Your task to perform on an android device: Search for bose soundlink on target, select the first entry, add it to the cart, then select checkout. Image 0: 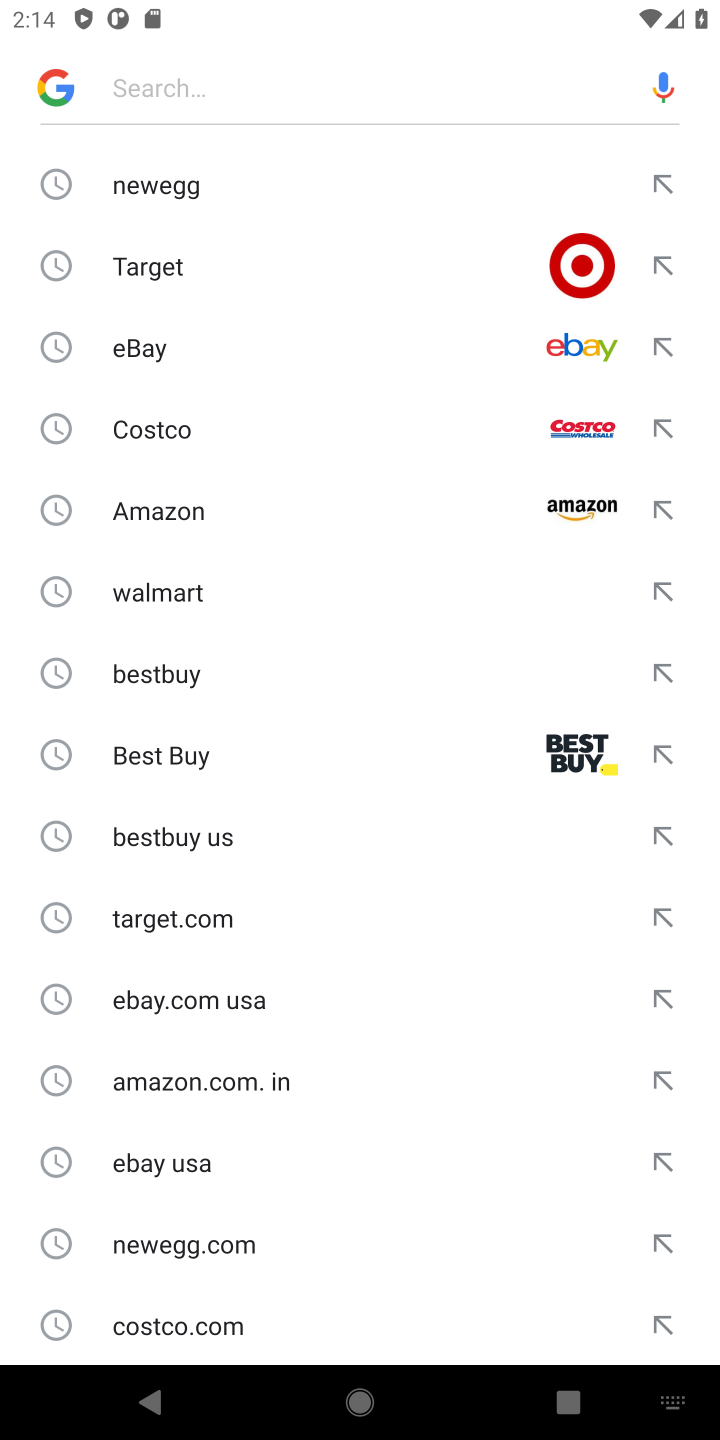
Step 0: click (218, 260)
Your task to perform on an android device: Search for bose soundlink on target, select the first entry, add it to the cart, then select checkout. Image 1: 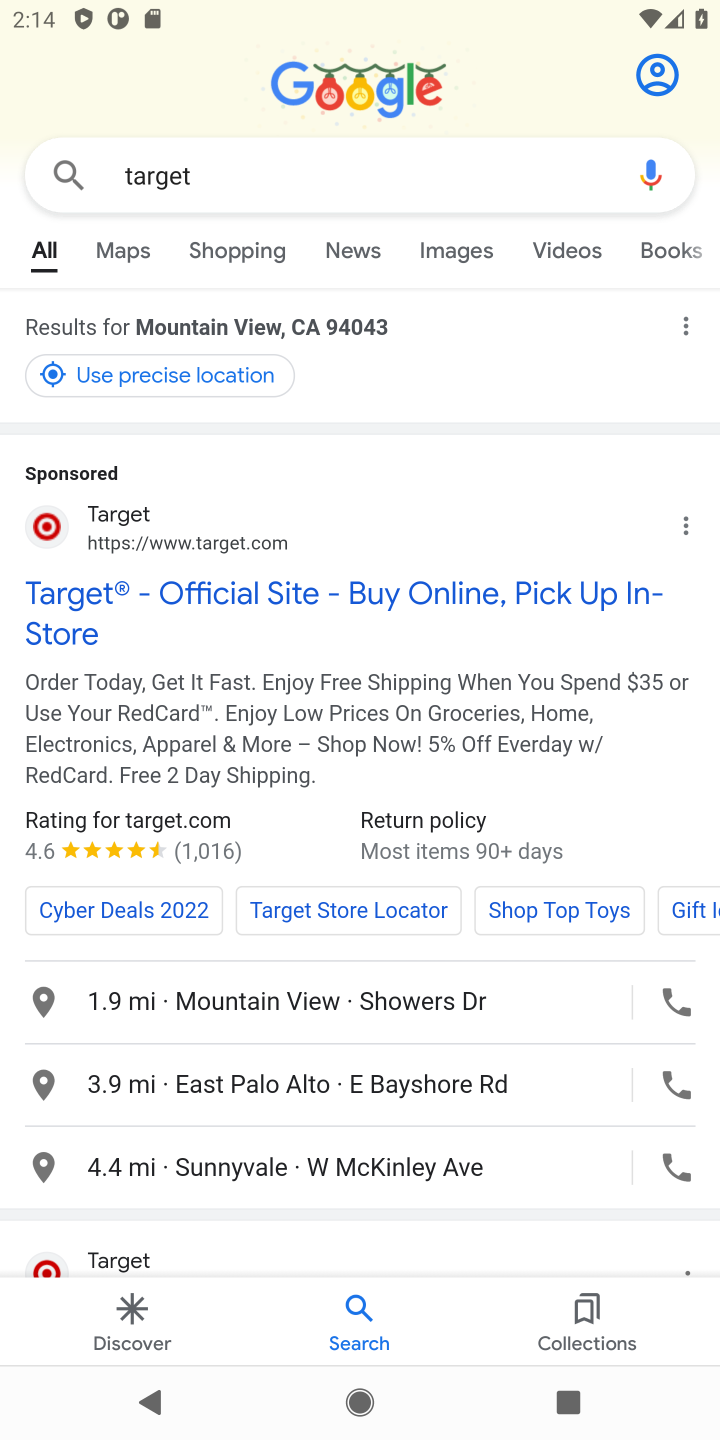
Step 1: click (339, 576)
Your task to perform on an android device: Search for bose soundlink on target, select the first entry, add it to the cart, then select checkout. Image 2: 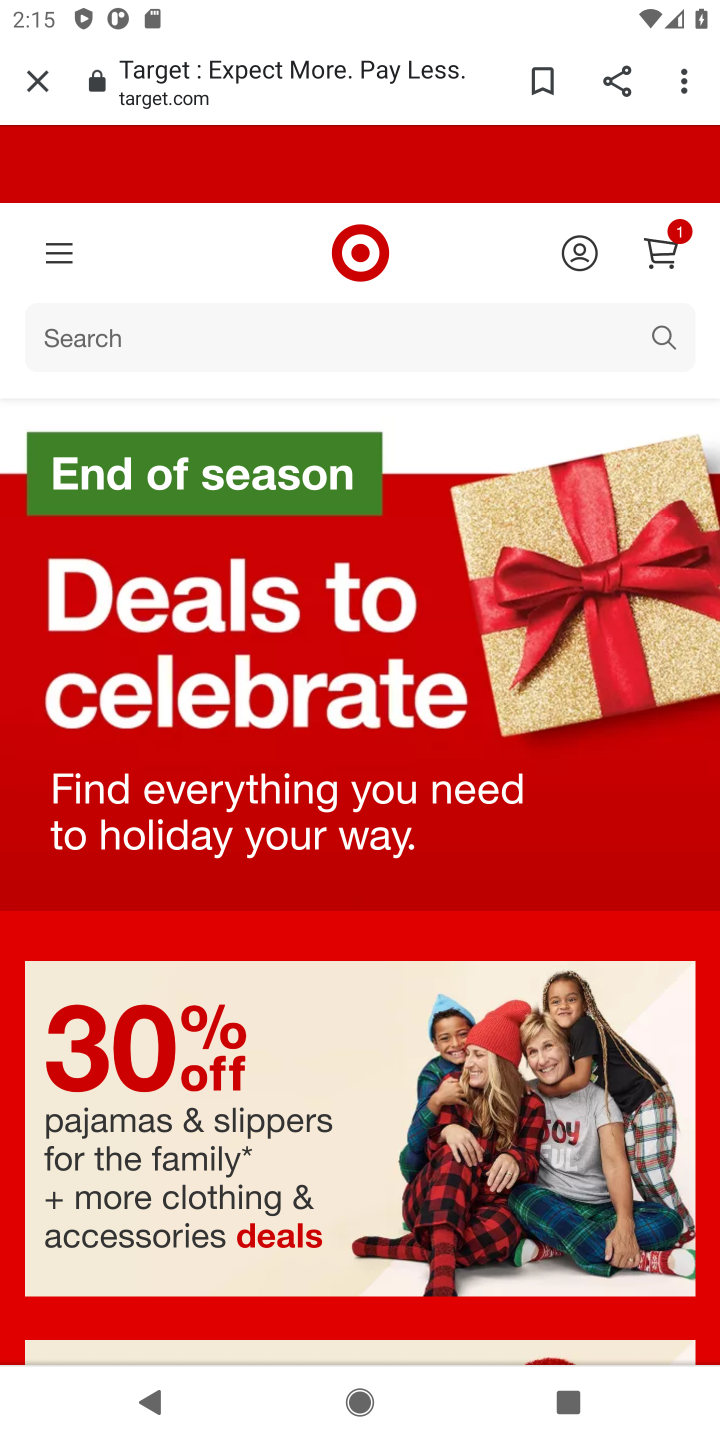
Step 2: click (192, 343)
Your task to perform on an android device: Search for bose soundlink on target, select the first entry, add it to the cart, then select checkout. Image 3: 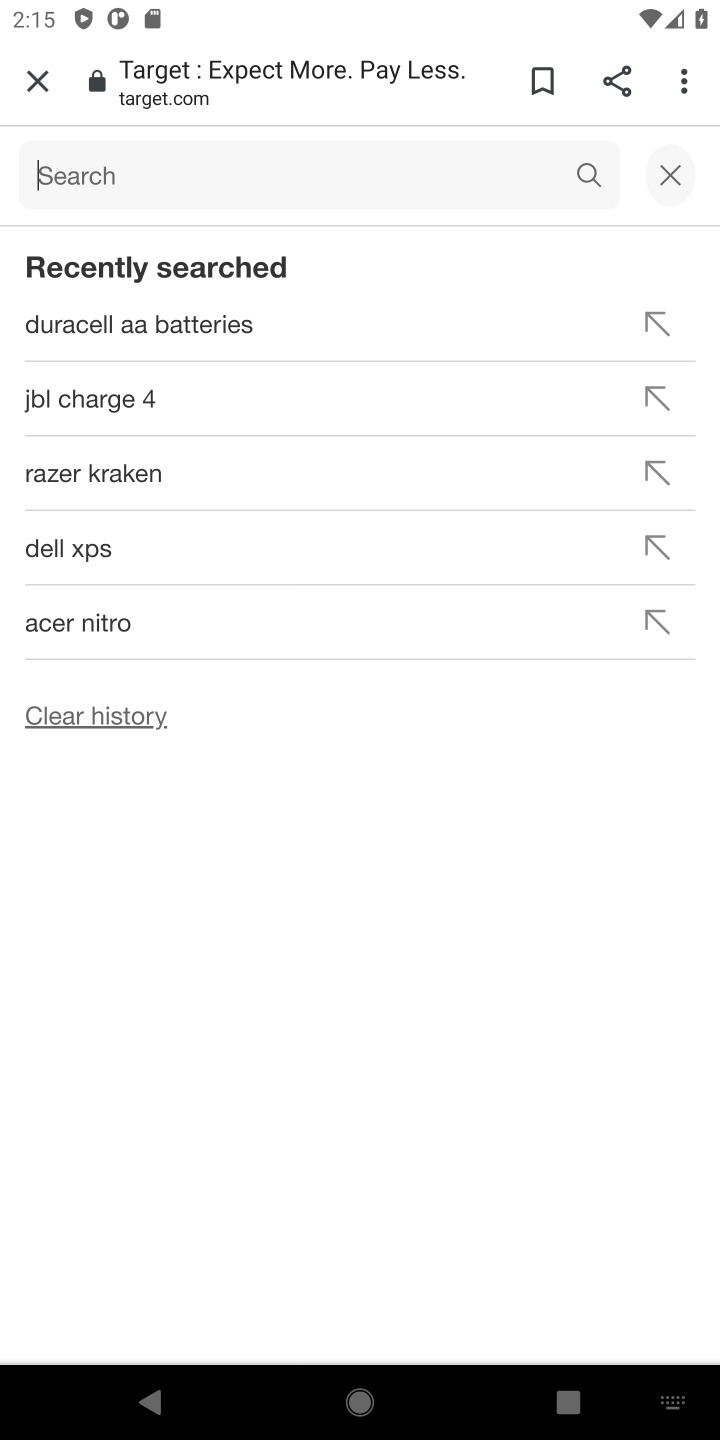
Step 3: press enter
Your task to perform on an android device: Search for bose soundlink on target, select the first entry, add it to the cart, then select checkout. Image 4: 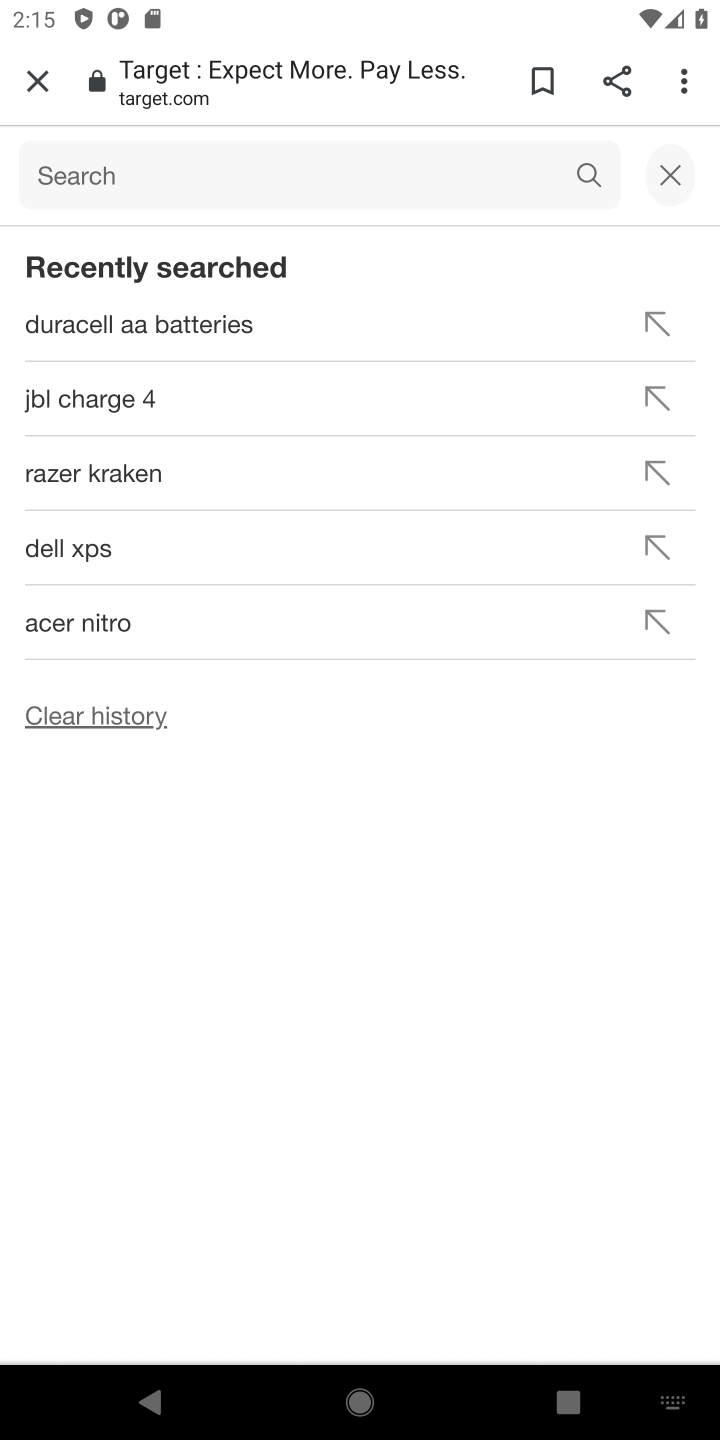
Step 4: type "bose soundlink "
Your task to perform on an android device: Search for bose soundlink on target, select the first entry, add it to the cart, then select checkout. Image 5: 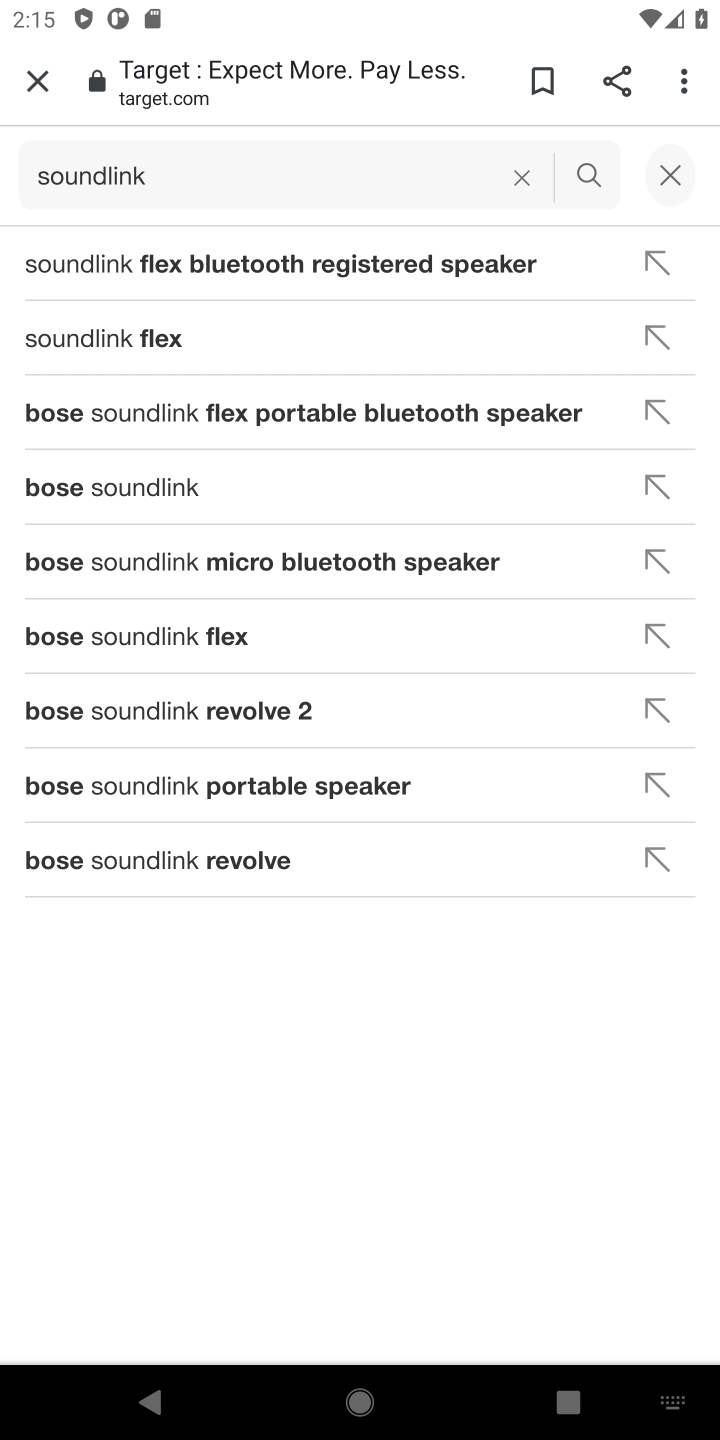
Step 5: click (169, 393)
Your task to perform on an android device: Search for bose soundlink on target, select the first entry, add it to the cart, then select checkout. Image 6: 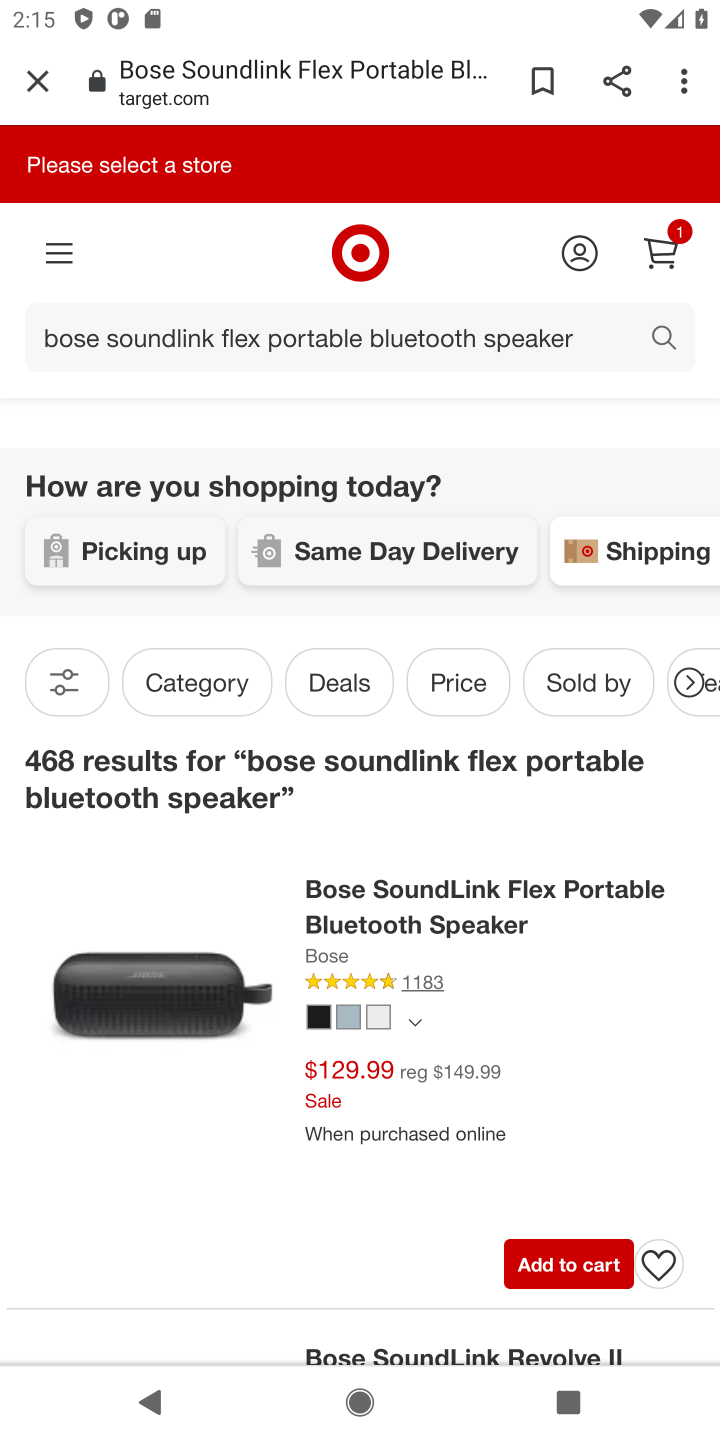
Step 6: click (566, 1259)
Your task to perform on an android device: Search for bose soundlink on target, select the first entry, add it to the cart, then select checkout. Image 7: 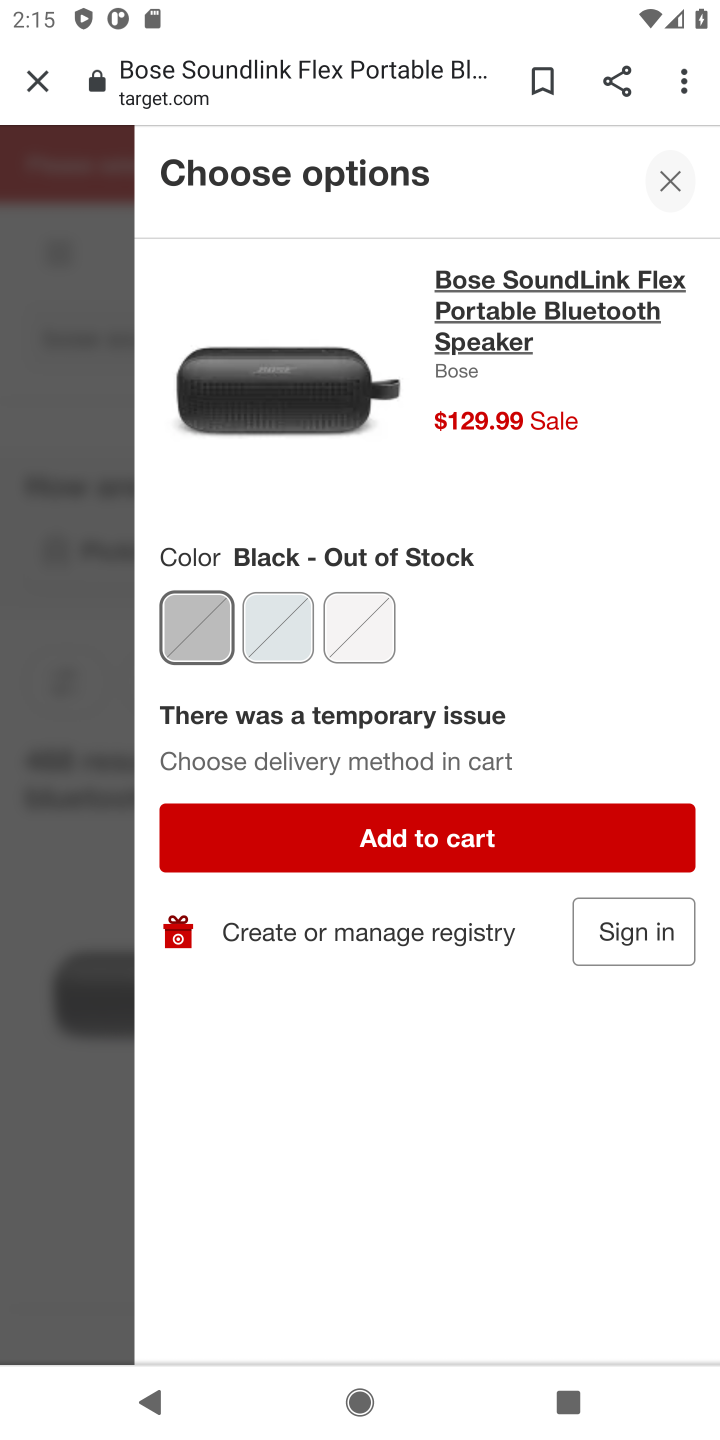
Step 7: click (488, 853)
Your task to perform on an android device: Search for bose soundlink on target, select the first entry, add it to the cart, then select checkout. Image 8: 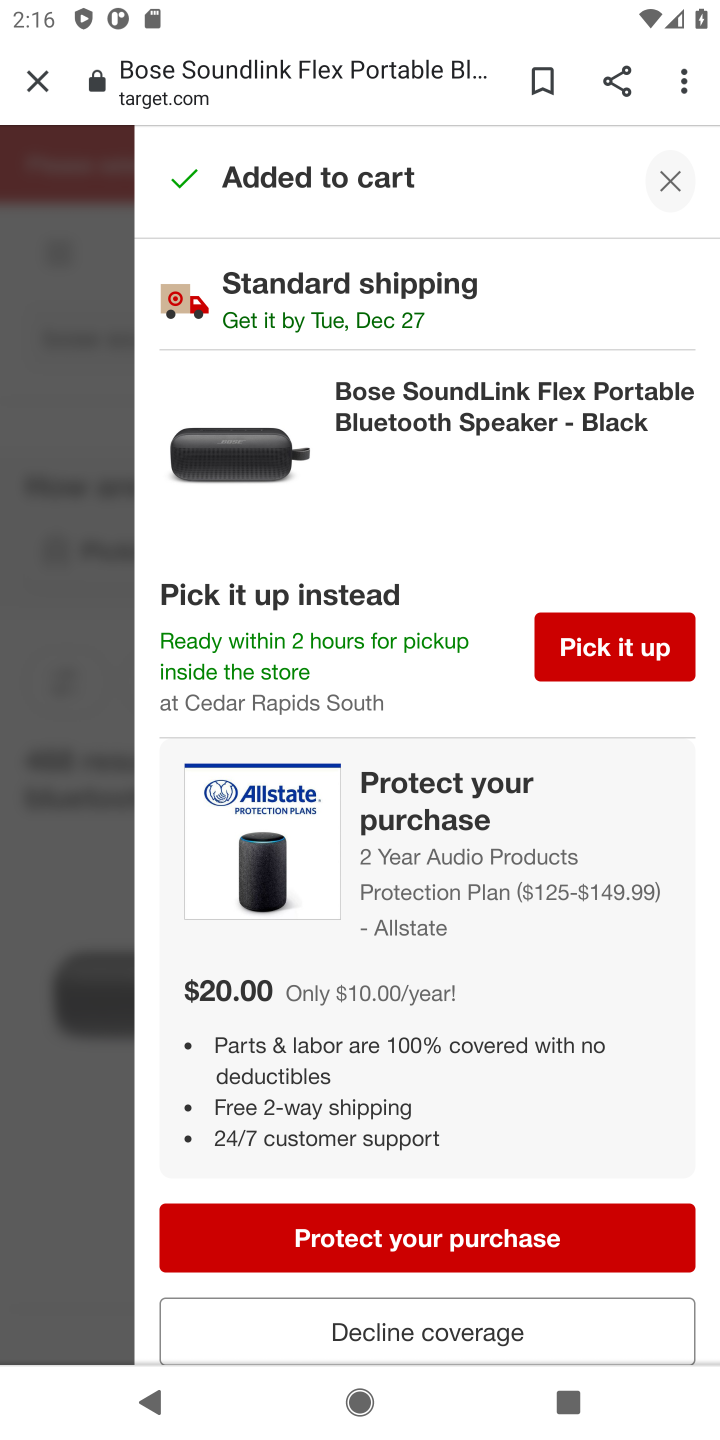
Step 8: task complete